Your task to perform on an android device: Go to Amazon Image 0: 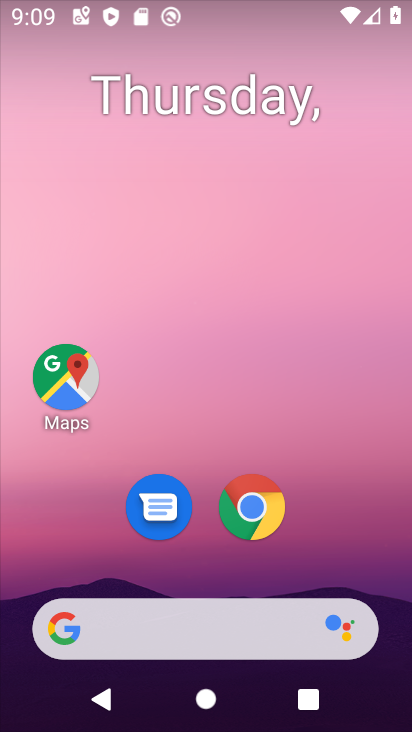
Step 0: click (252, 533)
Your task to perform on an android device: Go to Amazon Image 1: 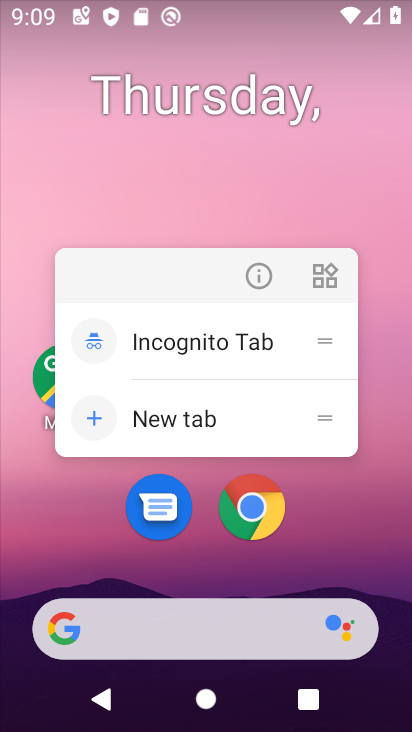
Step 1: click (253, 532)
Your task to perform on an android device: Go to Amazon Image 2: 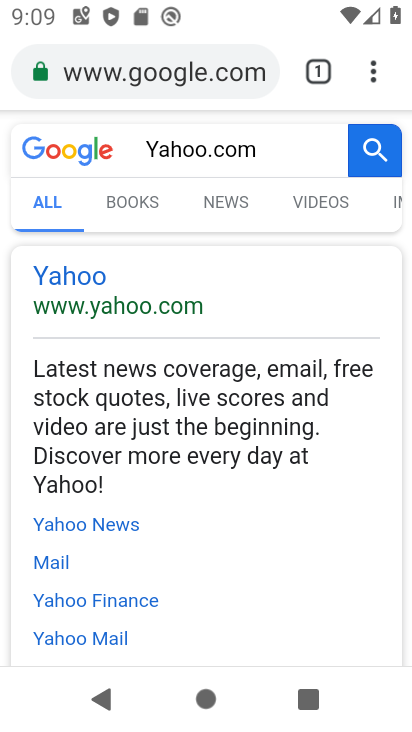
Step 2: click (192, 67)
Your task to perform on an android device: Go to Amazon Image 3: 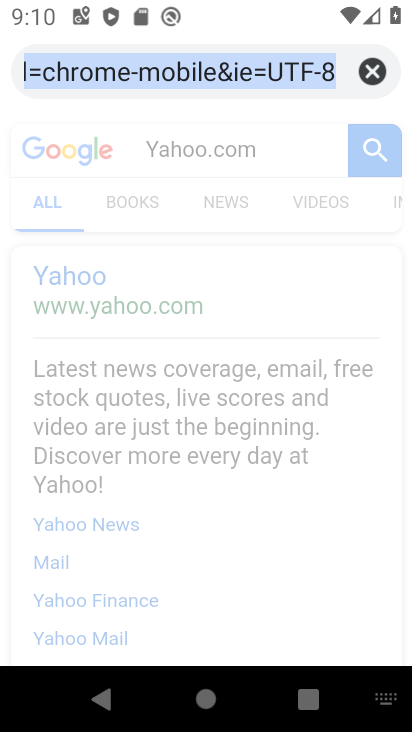
Step 3: type "Amazon"
Your task to perform on an android device: Go to Amazon Image 4: 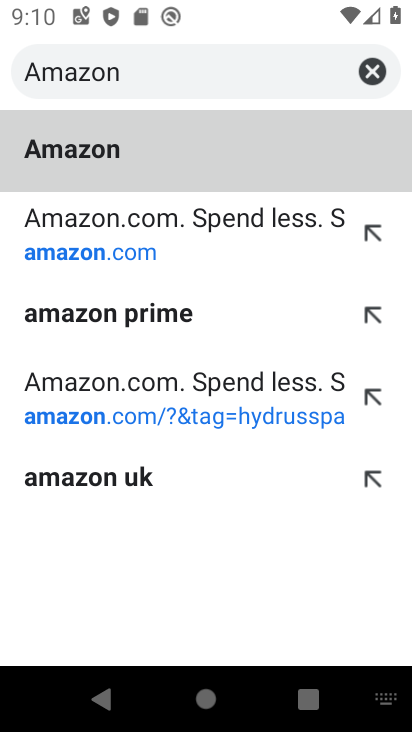
Step 4: click (180, 161)
Your task to perform on an android device: Go to Amazon Image 5: 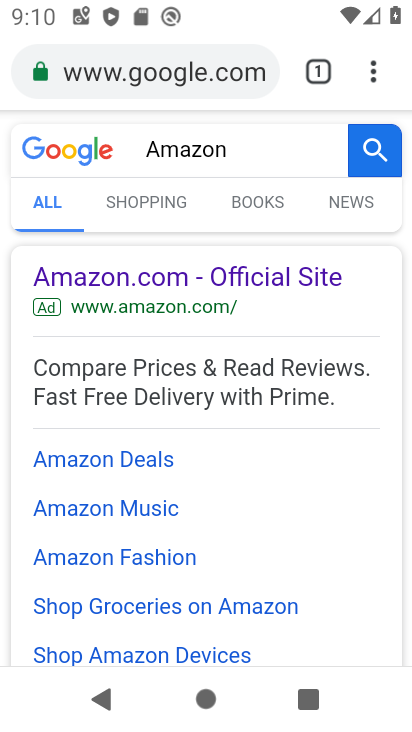
Step 5: task complete